Your task to perform on an android device: Toggle the flashlight Image 0: 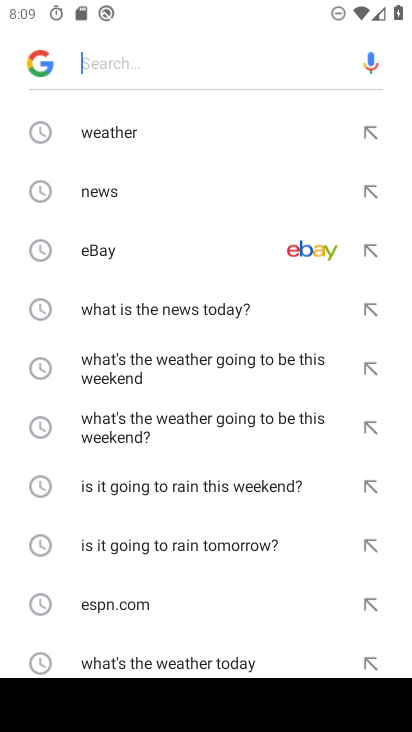
Step 0: press home button
Your task to perform on an android device: Toggle the flashlight Image 1: 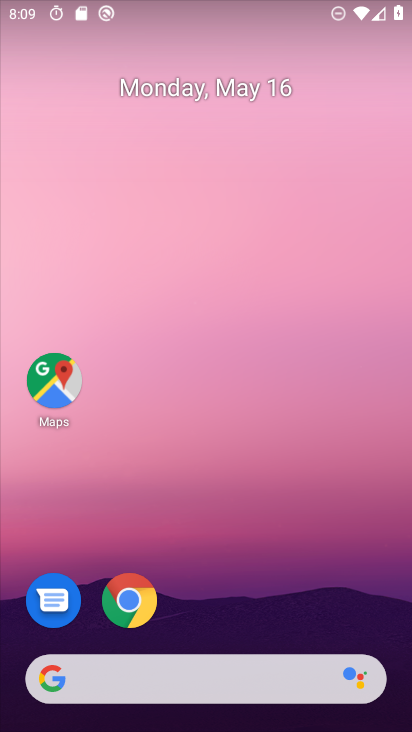
Step 1: task complete